Your task to perform on an android device: refresh tabs in the chrome app Image 0: 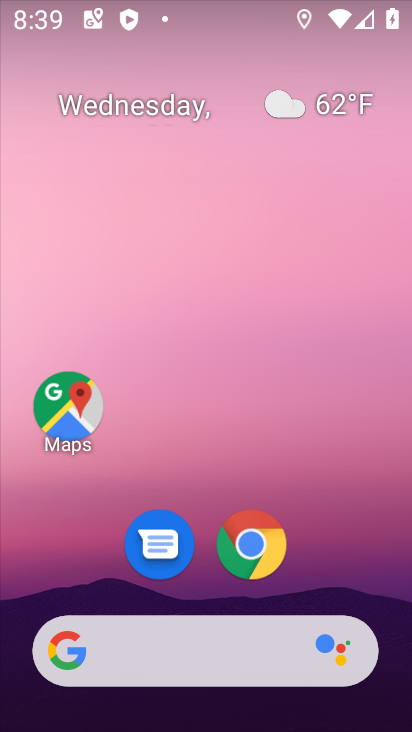
Step 0: click (237, 535)
Your task to perform on an android device: refresh tabs in the chrome app Image 1: 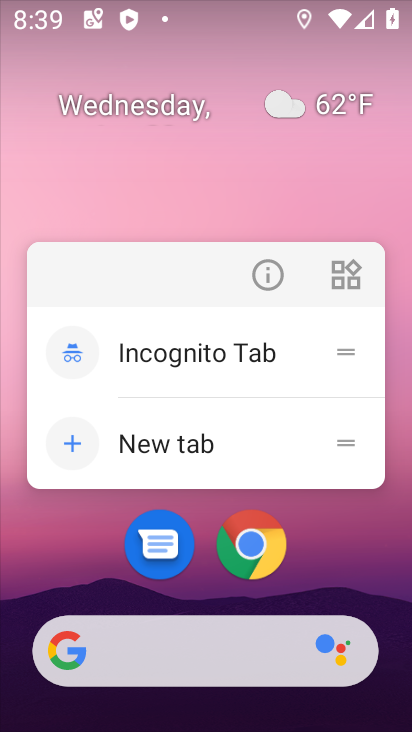
Step 1: click (242, 538)
Your task to perform on an android device: refresh tabs in the chrome app Image 2: 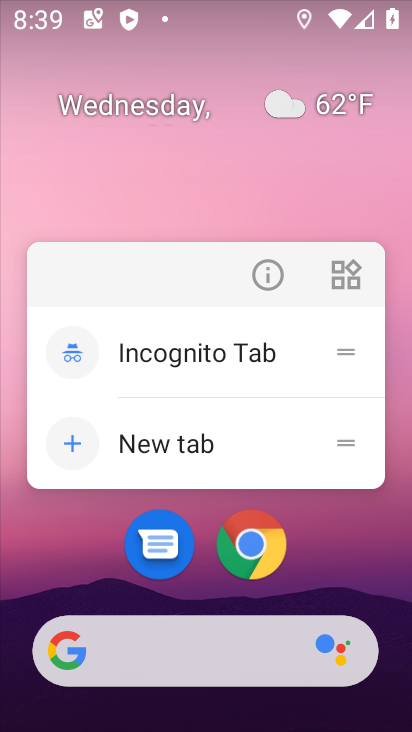
Step 2: click (253, 546)
Your task to perform on an android device: refresh tabs in the chrome app Image 3: 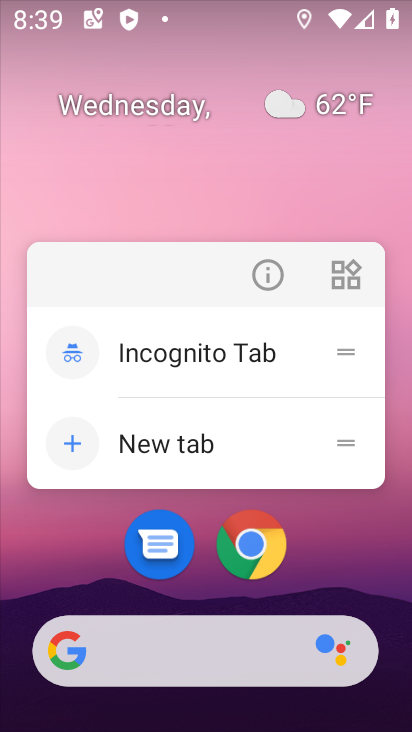
Step 3: click (252, 546)
Your task to perform on an android device: refresh tabs in the chrome app Image 4: 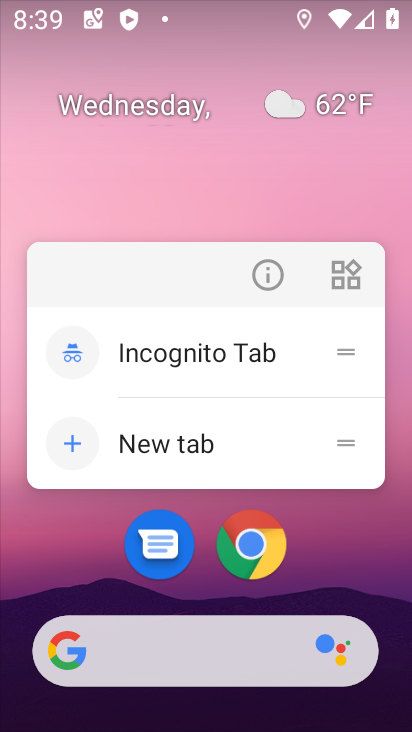
Step 4: click (256, 526)
Your task to perform on an android device: refresh tabs in the chrome app Image 5: 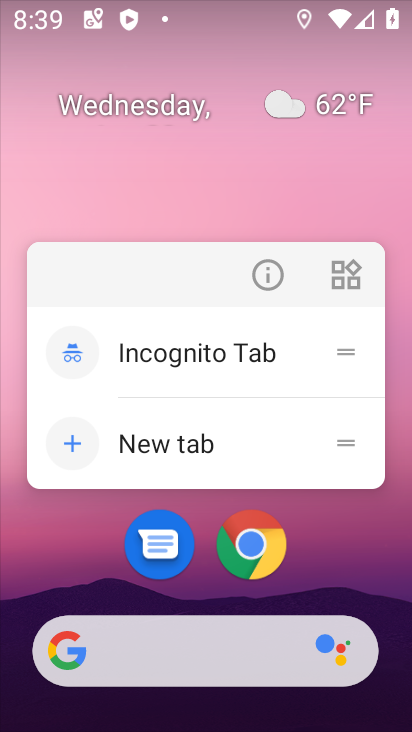
Step 5: click (219, 545)
Your task to perform on an android device: refresh tabs in the chrome app Image 6: 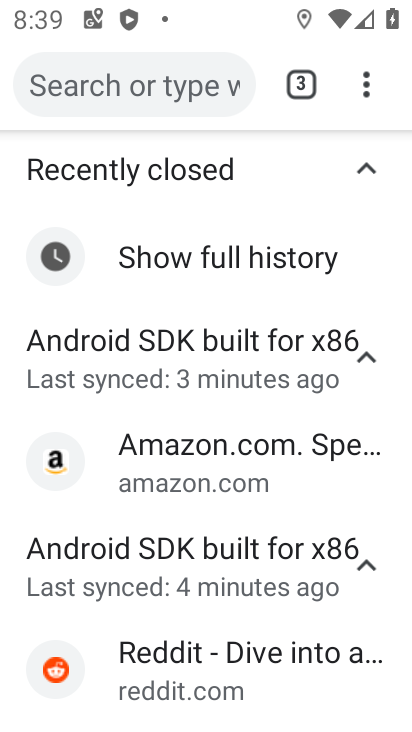
Step 6: click (365, 79)
Your task to perform on an android device: refresh tabs in the chrome app Image 7: 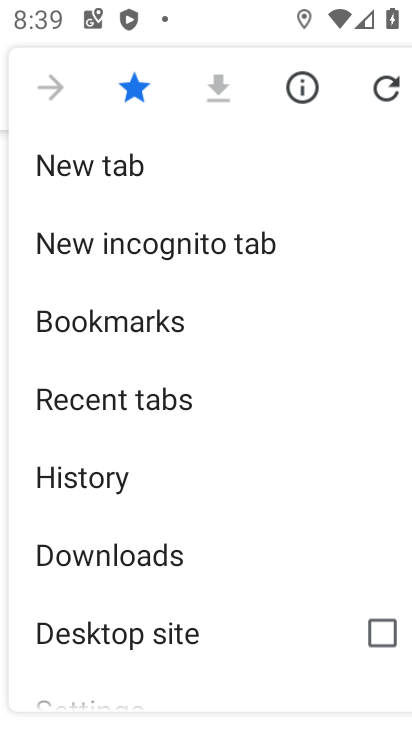
Step 7: click (377, 89)
Your task to perform on an android device: refresh tabs in the chrome app Image 8: 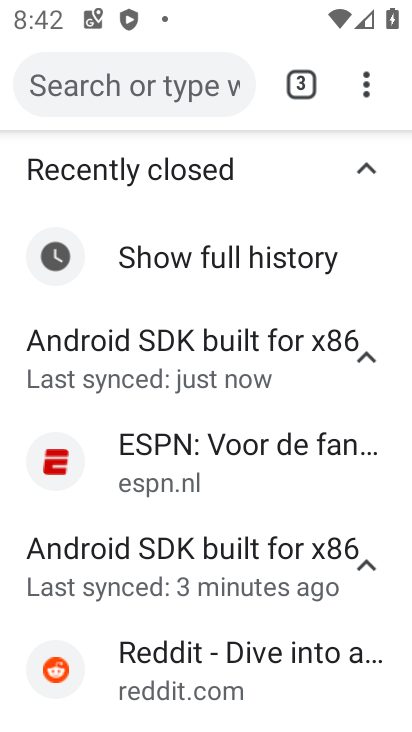
Step 8: click (366, 76)
Your task to perform on an android device: refresh tabs in the chrome app Image 9: 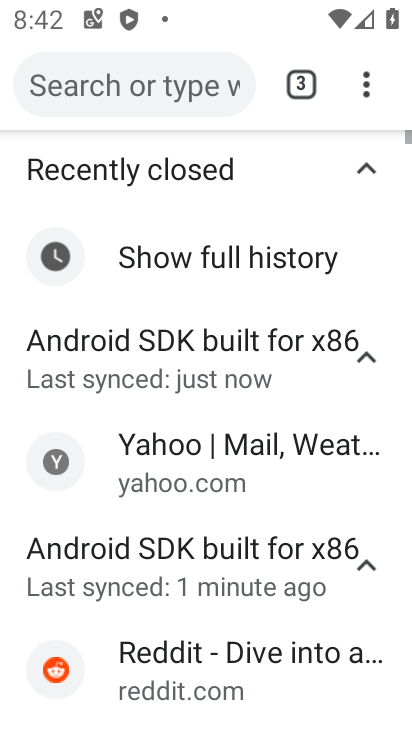
Step 9: click (365, 88)
Your task to perform on an android device: refresh tabs in the chrome app Image 10: 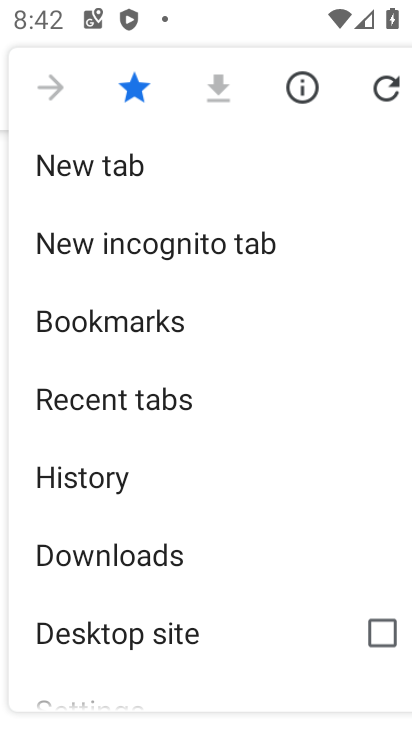
Step 10: click (383, 91)
Your task to perform on an android device: refresh tabs in the chrome app Image 11: 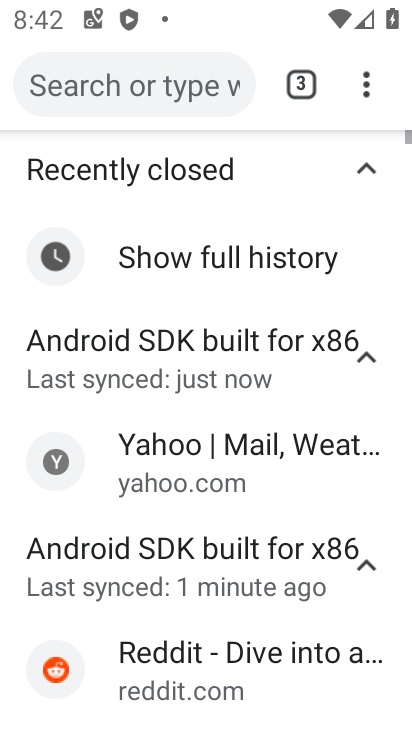
Step 11: task complete